Your task to perform on an android device: Go to calendar. Show me events next week Image 0: 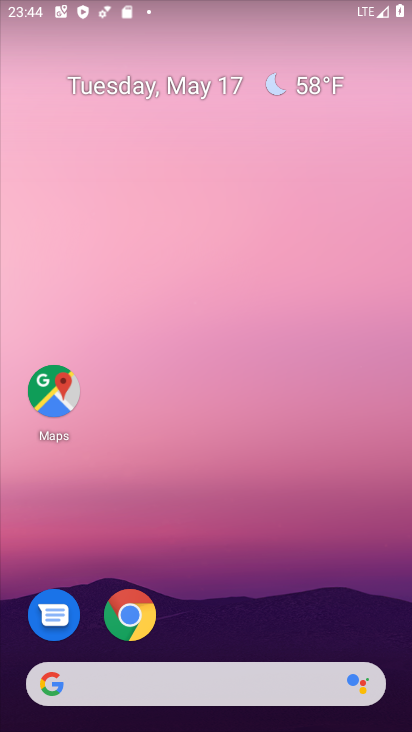
Step 0: drag from (204, 596) to (222, 129)
Your task to perform on an android device: Go to calendar. Show me events next week Image 1: 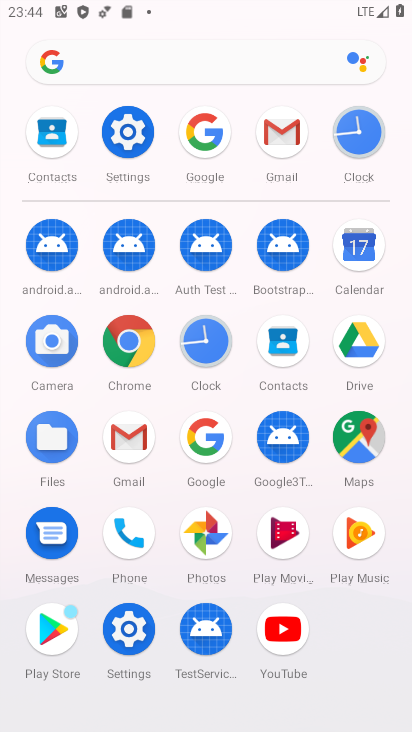
Step 1: click (358, 251)
Your task to perform on an android device: Go to calendar. Show me events next week Image 2: 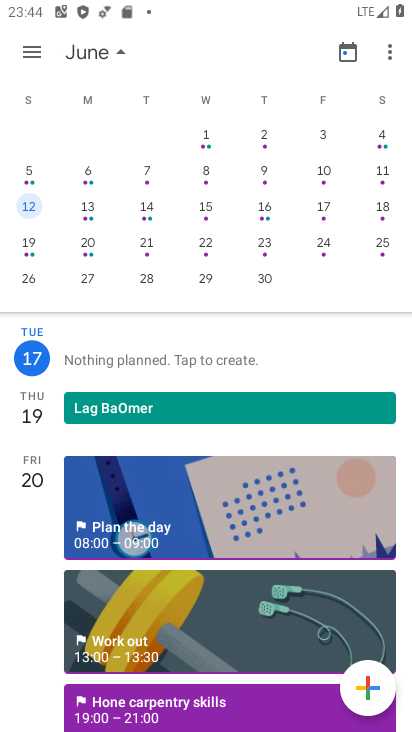
Step 2: click (33, 240)
Your task to perform on an android device: Go to calendar. Show me events next week Image 3: 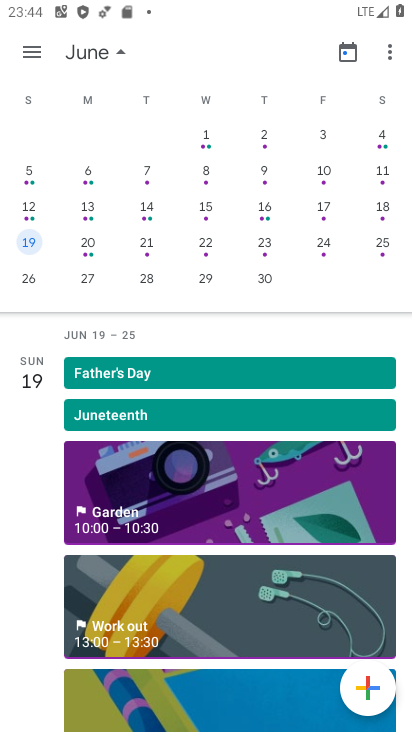
Step 3: task complete